Your task to perform on an android device: Open Youtube and go to "Your channel" Image 0: 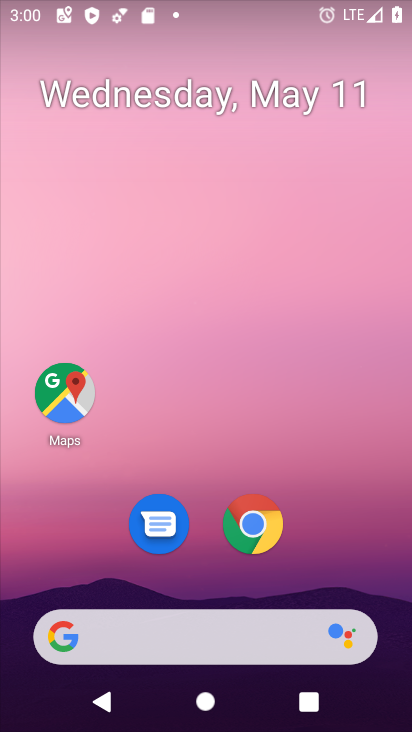
Step 0: drag from (328, 560) to (253, 15)
Your task to perform on an android device: Open Youtube and go to "Your channel" Image 1: 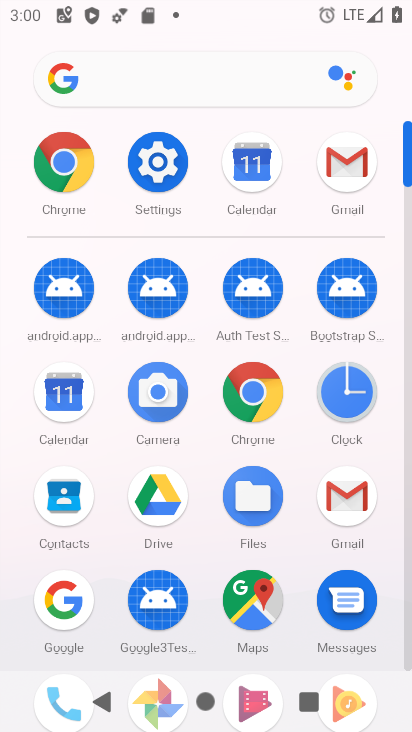
Step 1: drag from (312, 542) to (280, 143)
Your task to perform on an android device: Open Youtube and go to "Your channel" Image 2: 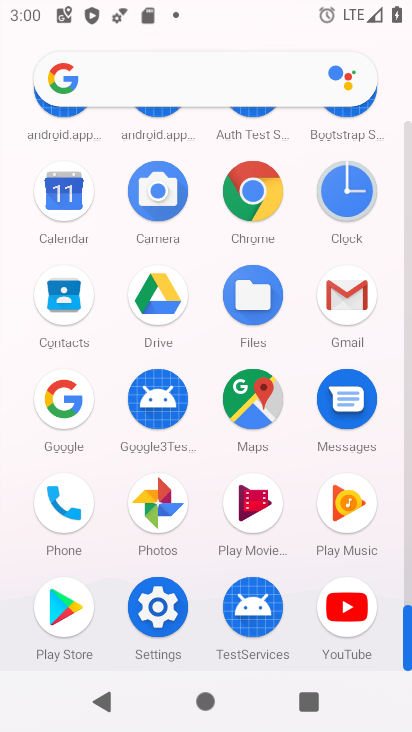
Step 2: click (346, 591)
Your task to perform on an android device: Open Youtube and go to "Your channel" Image 3: 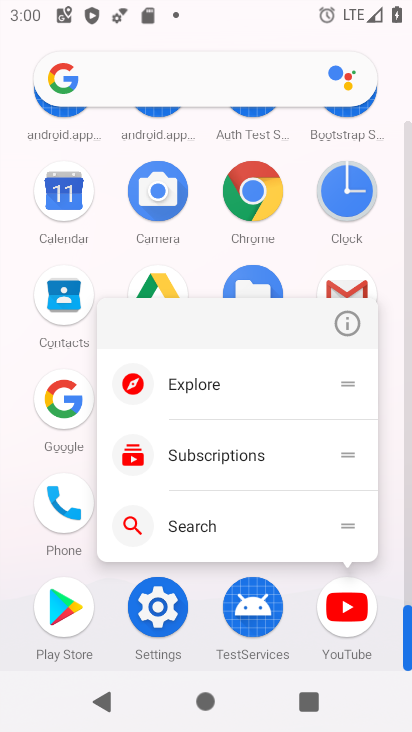
Step 3: click (354, 606)
Your task to perform on an android device: Open Youtube and go to "Your channel" Image 4: 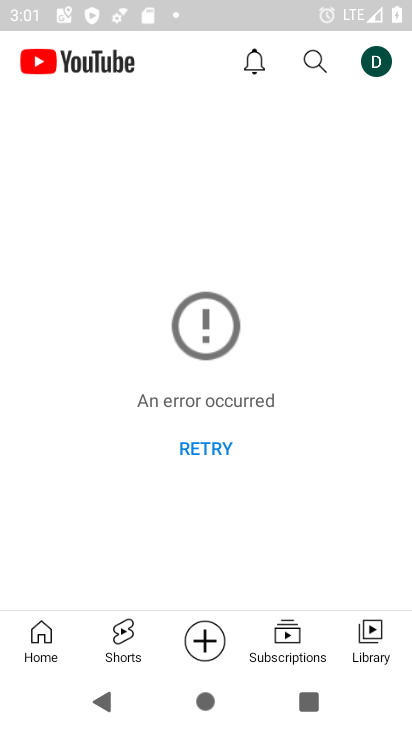
Step 4: click (376, 56)
Your task to perform on an android device: Open Youtube and go to "Your channel" Image 5: 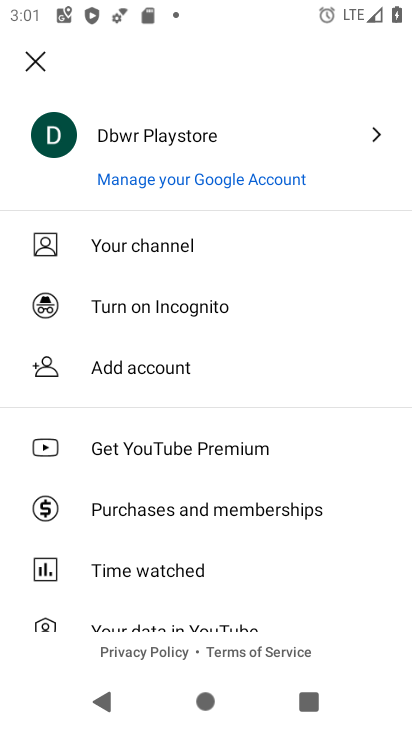
Step 5: click (181, 240)
Your task to perform on an android device: Open Youtube and go to "Your channel" Image 6: 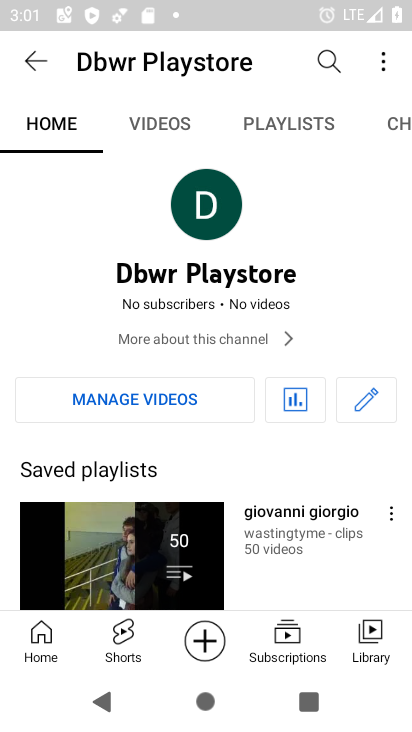
Step 6: task complete